Your task to perform on an android device: Search for Mexican restaurants on Maps Image 0: 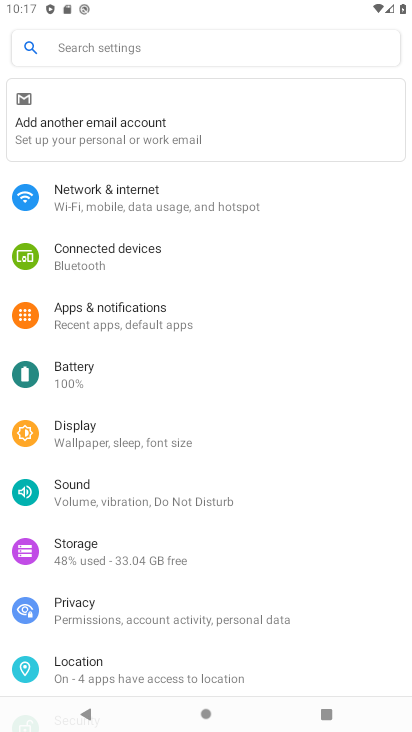
Step 0: press home button
Your task to perform on an android device: Search for Mexican restaurants on Maps Image 1: 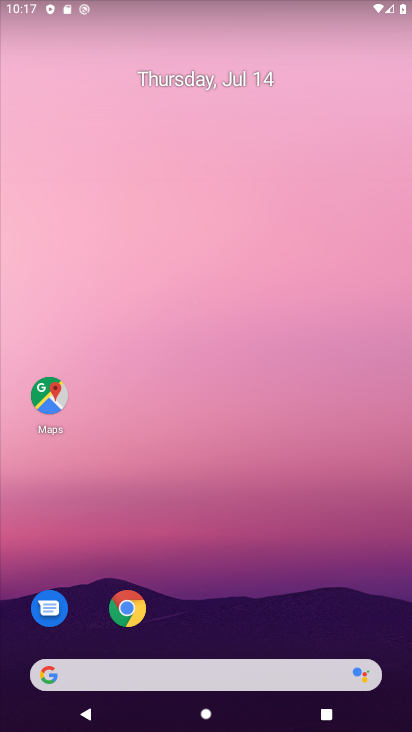
Step 1: drag from (234, 725) to (201, 272)
Your task to perform on an android device: Search for Mexican restaurants on Maps Image 2: 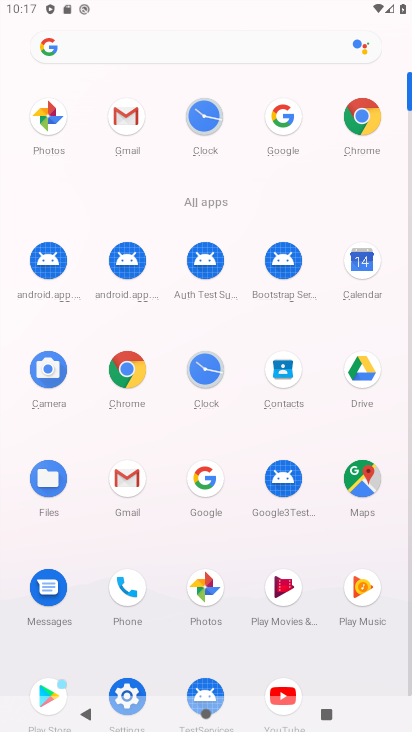
Step 2: click (351, 479)
Your task to perform on an android device: Search for Mexican restaurants on Maps Image 3: 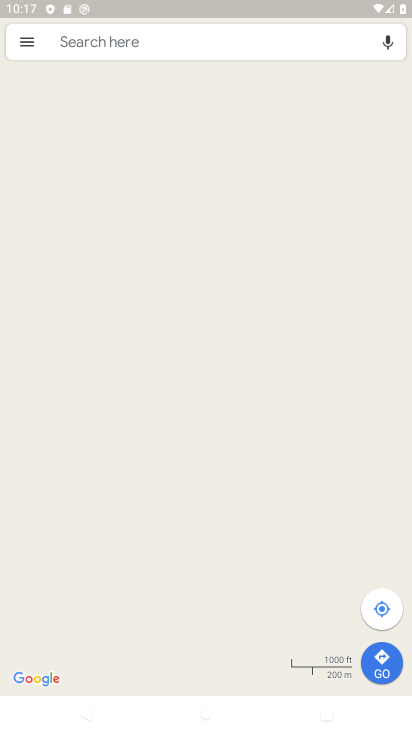
Step 3: click (144, 46)
Your task to perform on an android device: Search for Mexican restaurants on Maps Image 4: 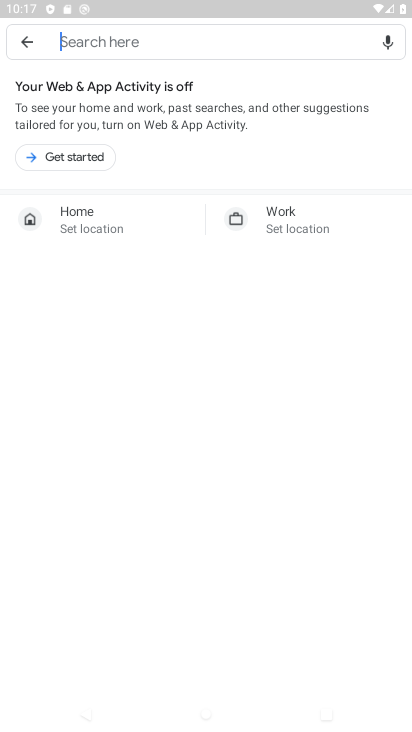
Step 4: click (144, 46)
Your task to perform on an android device: Search for Mexican restaurants on Maps Image 5: 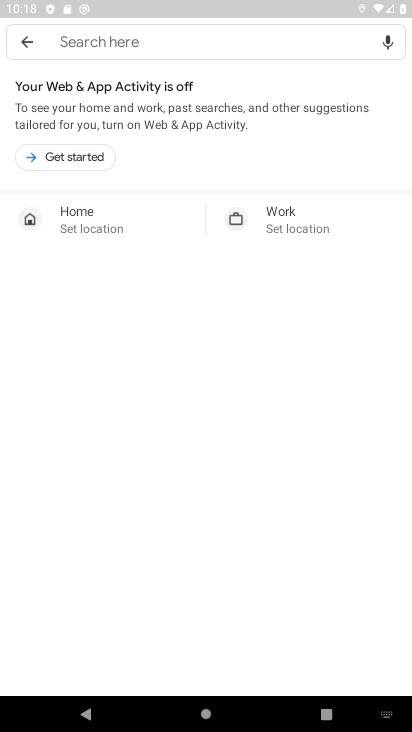
Step 5: type "Mexican restaurants"
Your task to perform on an android device: Search for Mexican restaurants on Maps Image 6: 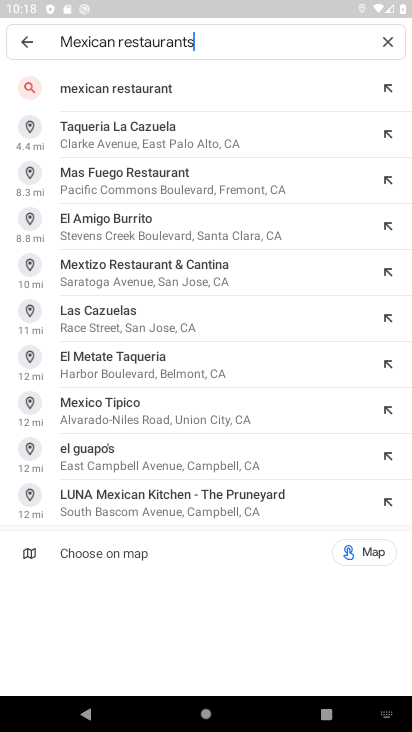
Step 6: click (130, 89)
Your task to perform on an android device: Search for Mexican restaurants on Maps Image 7: 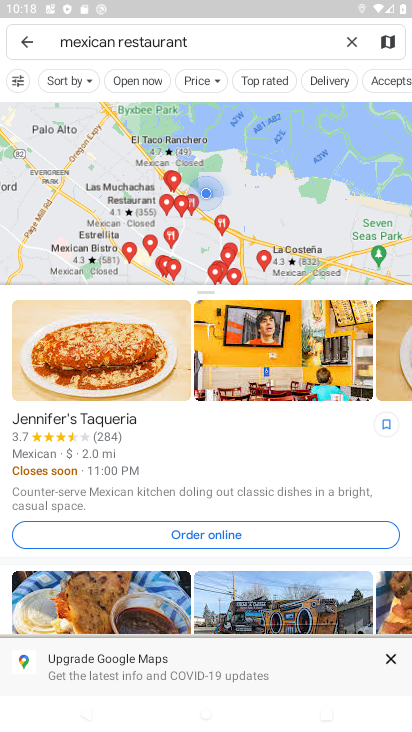
Step 7: task complete